Your task to perform on an android device: toggle show notifications on the lock screen Image 0: 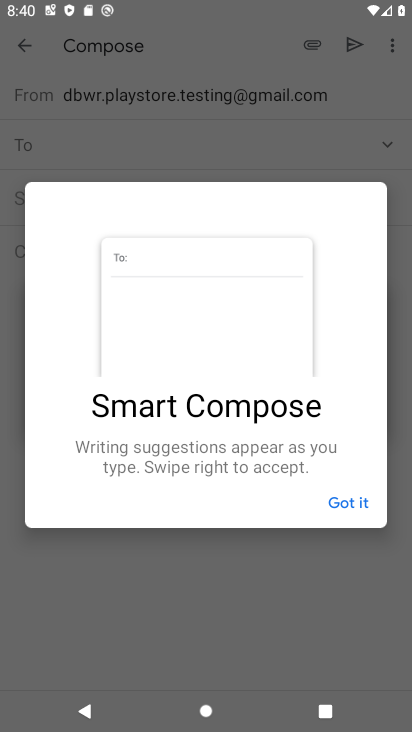
Step 0: press home button
Your task to perform on an android device: toggle show notifications on the lock screen Image 1: 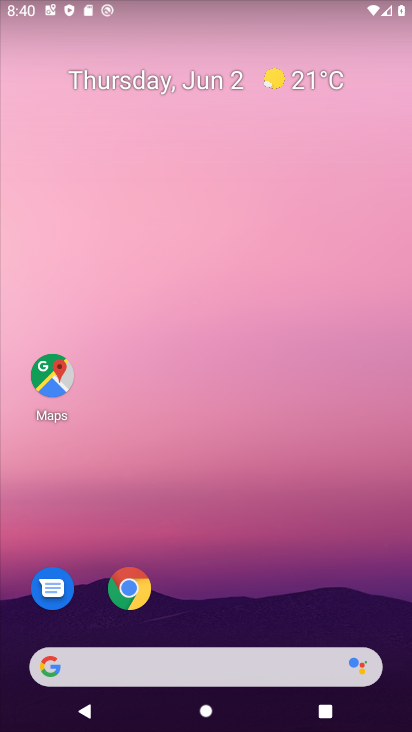
Step 1: drag from (228, 650) to (247, 134)
Your task to perform on an android device: toggle show notifications on the lock screen Image 2: 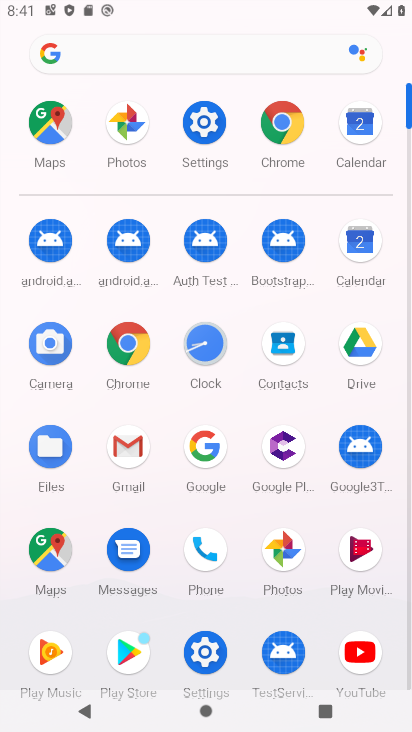
Step 2: click (202, 128)
Your task to perform on an android device: toggle show notifications on the lock screen Image 3: 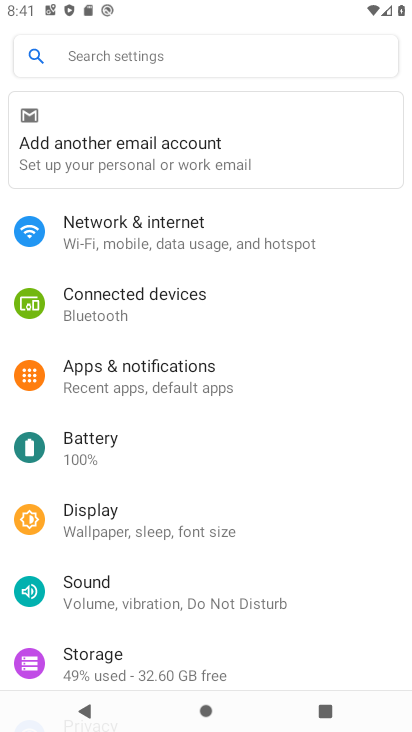
Step 3: click (142, 370)
Your task to perform on an android device: toggle show notifications on the lock screen Image 4: 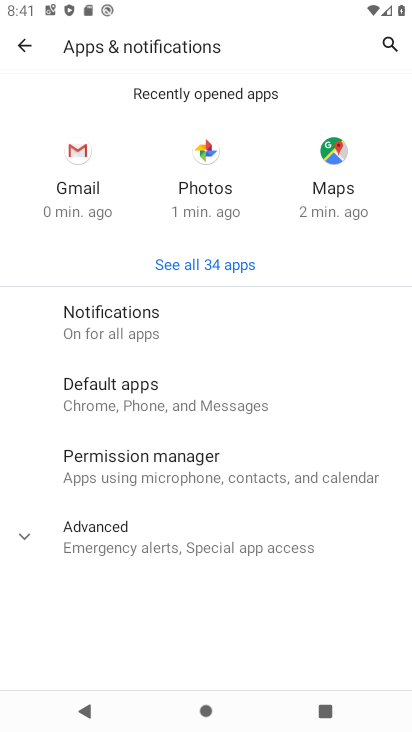
Step 4: click (109, 329)
Your task to perform on an android device: toggle show notifications on the lock screen Image 5: 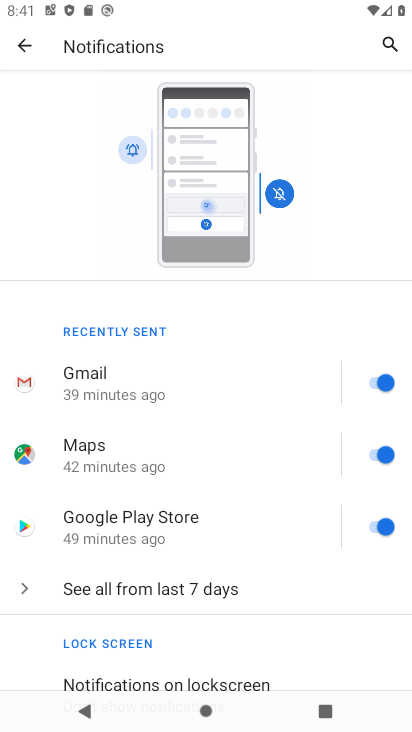
Step 5: drag from (201, 576) to (151, 208)
Your task to perform on an android device: toggle show notifications on the lock screen Image 6: 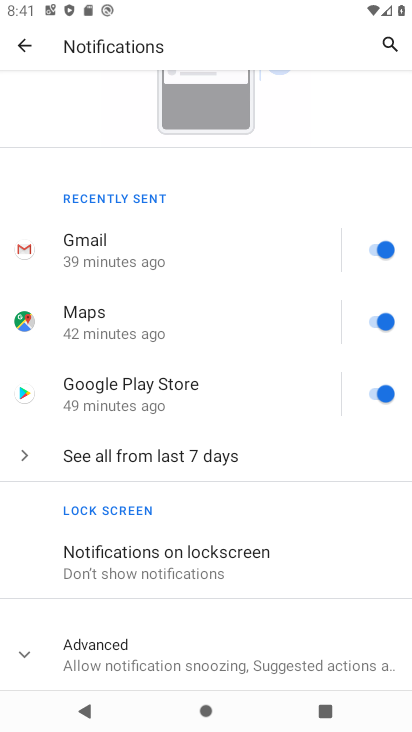
Step 6: click (173, 563)
Your task to perform on an android device: toggle show notifications on the lock screen Image 7: 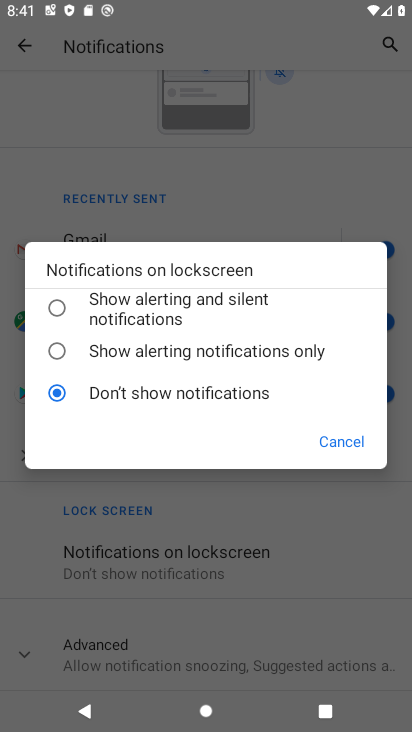
Step 7: click (67, 315)
Your task to perform on an android device: toggle show notifications on the lock screen Image 8: 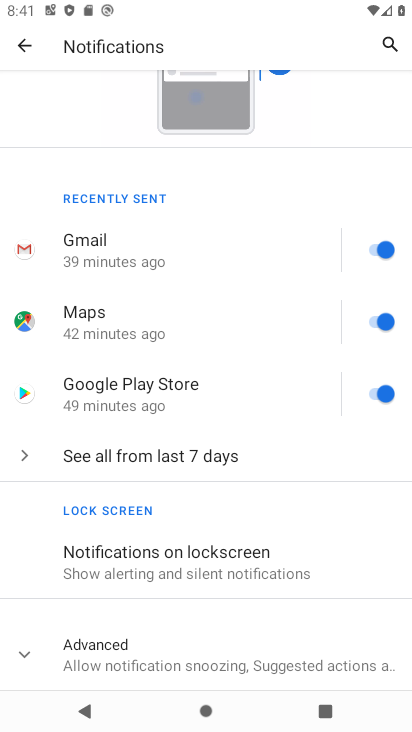
Step 8: task complete